Your task to perform on an android device: change your default location settings in chrome Image 0: 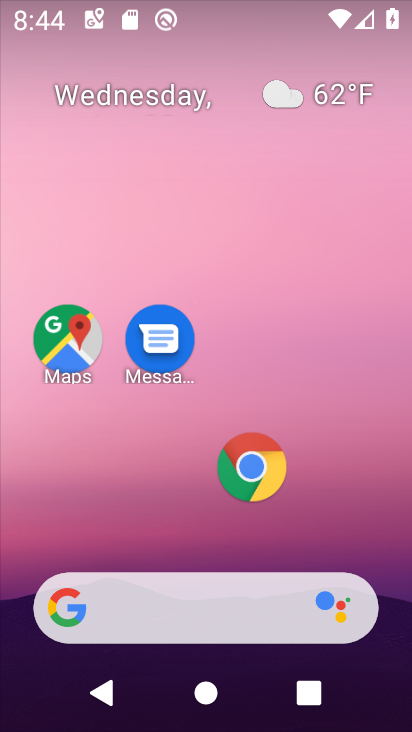
Step 0: click (253, 471)
Your task to perform on an android device: change your default location settings in chrome Image 1: 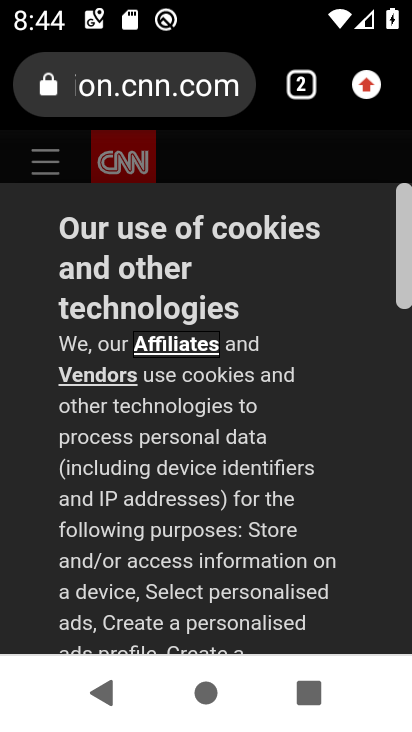
Step 1: click (369, 84)
Your task to perform on an android device: change your default location settings in chrome Image 2: 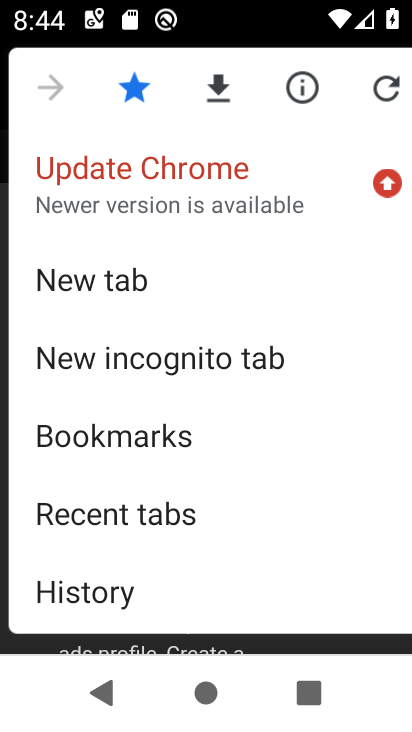
Step 2: drag from (207, 521) to (217, 81)
Your task to perform on an android device: change your default location settings in chrome Image 3: 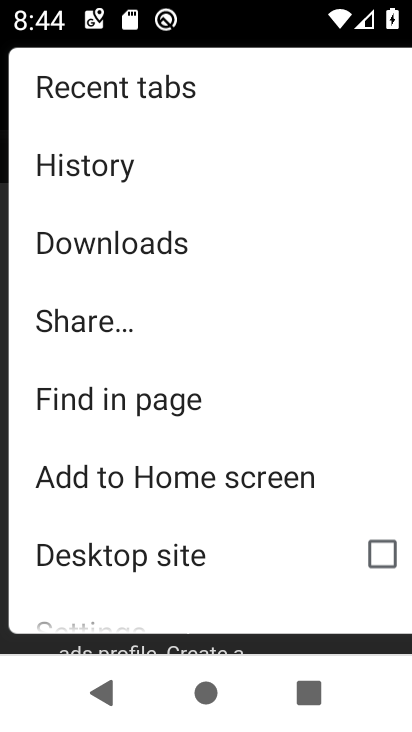
Step 3: drag from (172, 571) to (198, 291)
Your task to perform on an android device: change your default location settings in chrome Image 4: 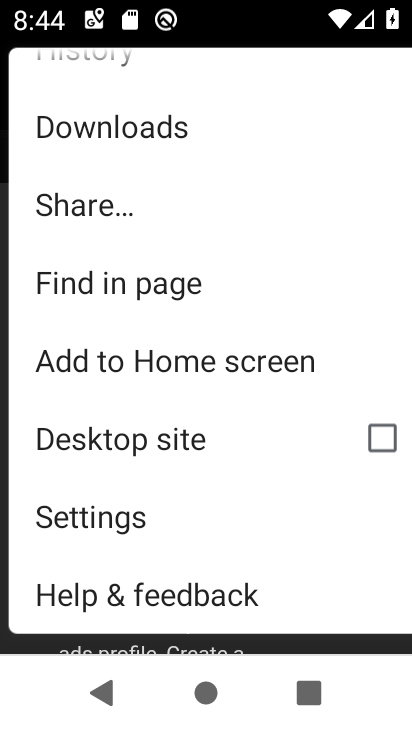
Step 4: click (94, 511)
Your task to perform on an android device: change your default location settings in chrome Image 5: 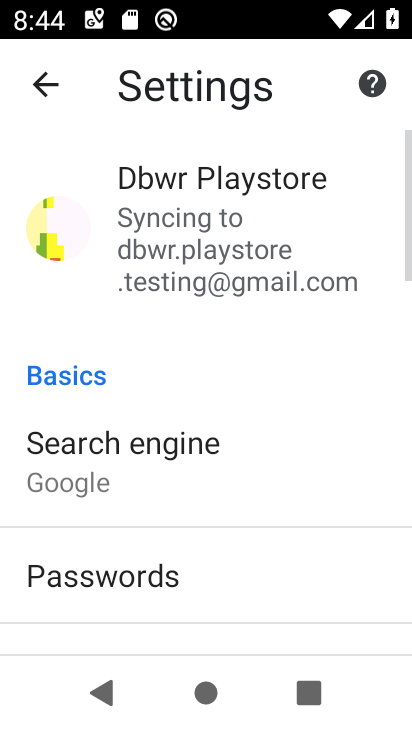
Step 5: drag from (209, 546) to (219, 28)
Your task to perform on an android device: change your default location settings in chrome Image 6: 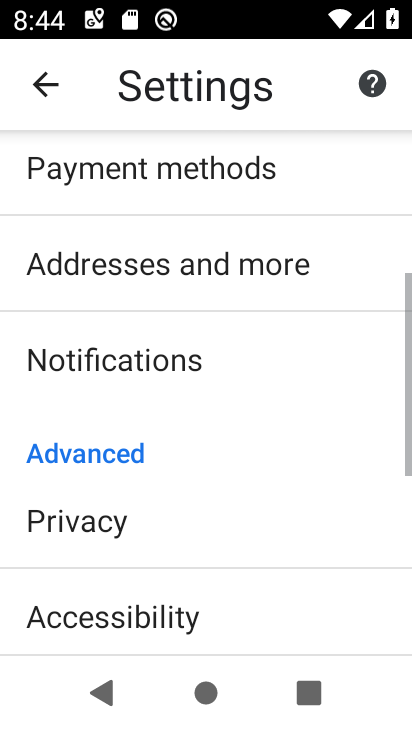
Step 6: drag from (219, 534) to (207, 137)
Your task to perform on an android device: change your default location settings in chrome Image 7: 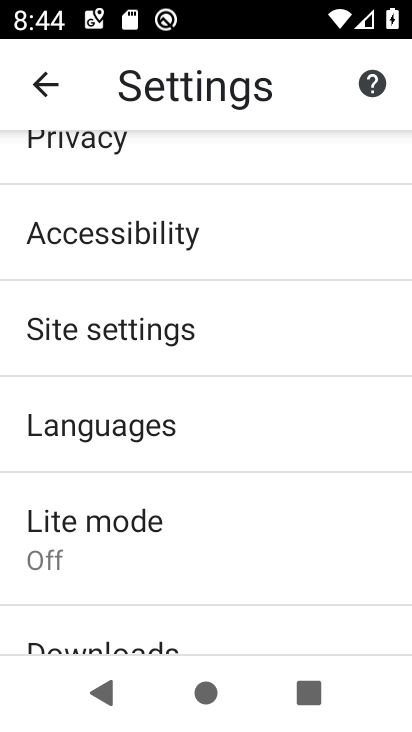
Step 7: click (130, 340)
Your task to perform on an android device: change your default location settings in chrome Image 8: 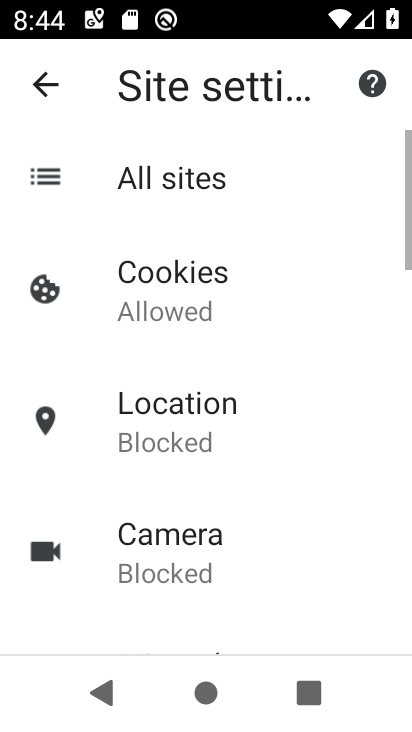
Step 8: click (196, 420)
Your task to perform on an android device: change your default location settings in chrome Image 9: 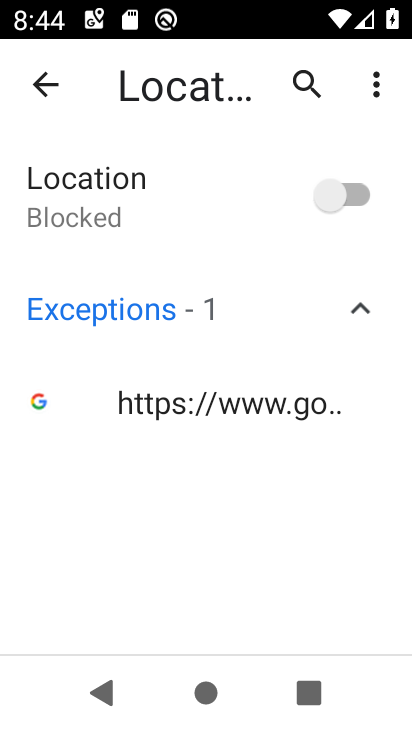
Step 9: click (338, 198)
Your task to perform on an android device: change your default location settings in chrome Image 10: 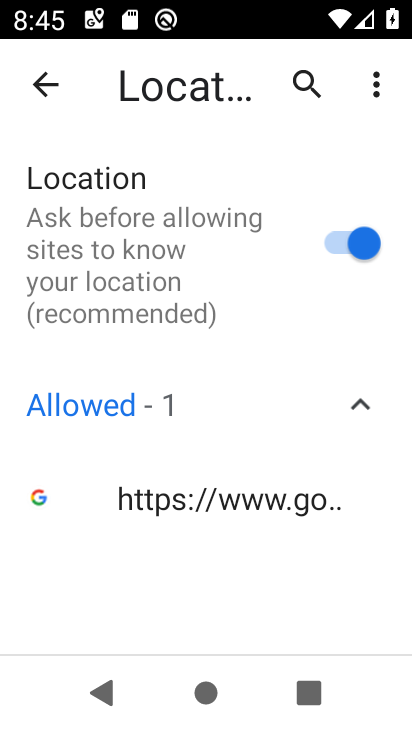
Step 10: task complete